Your task to perform on an android device: set the stopwatch Image 0: 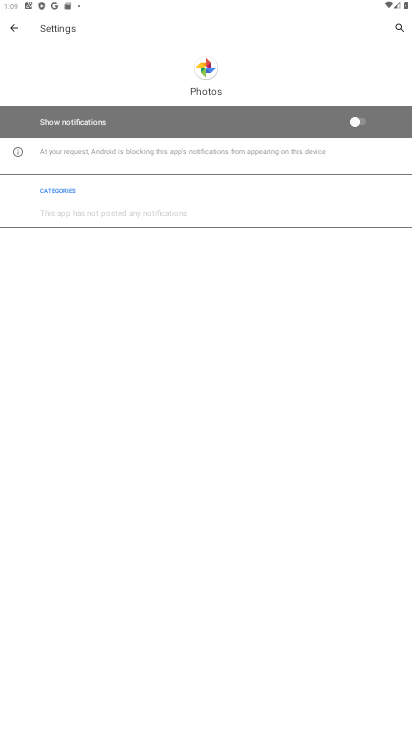
Step 0: press home button
Your task to perform on an android device: set the stopwatch Image 1: 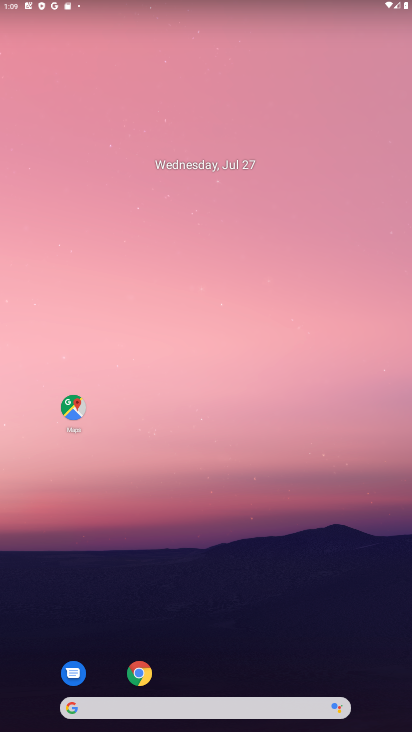
Step 1: drag from (210, 664) to (213, 113)
Your task to perform on an android device: set the stopwatch Image 2: 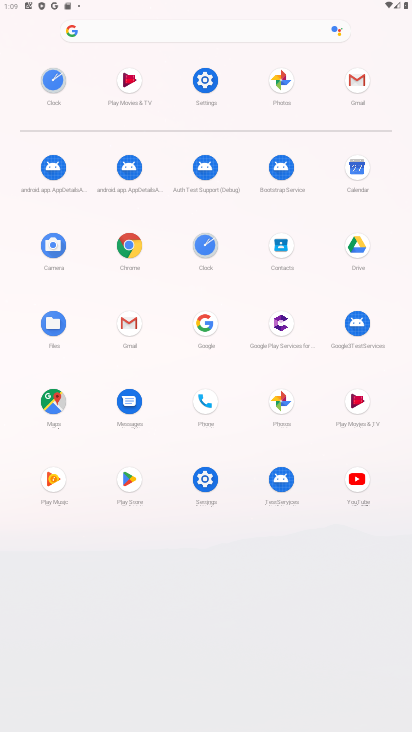
Step 2: click (54, 74)
Your task to perform on an android device: set the stopwatch Image 3: 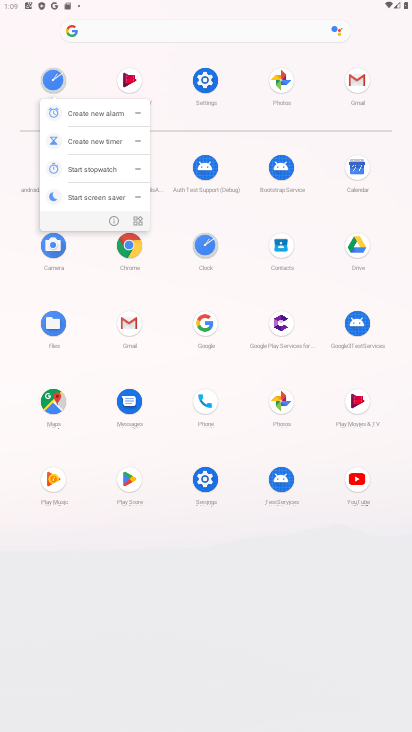
Step 3: click (53, 75)
Your task to perform on an android device: set the stopwatch Image 4: 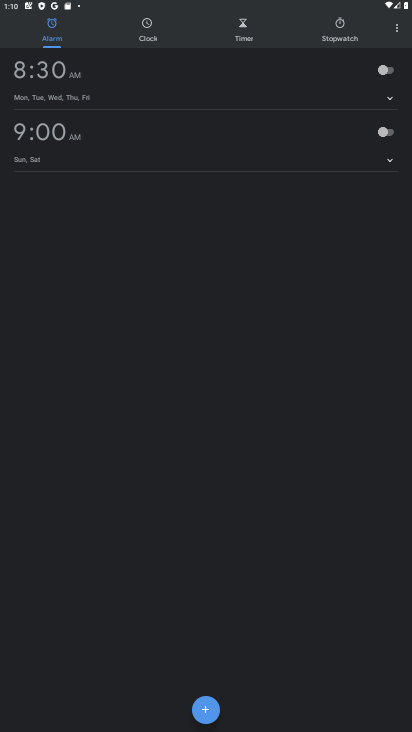
Step 4: click (333, 28)
Your task to perform on an android device: set the stopwatch Image 5: 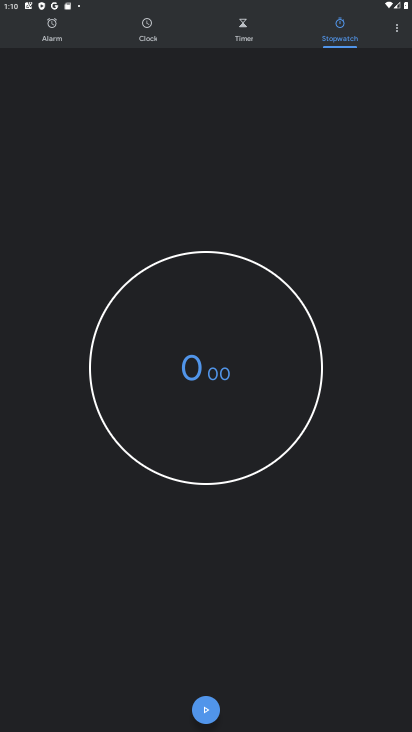
Step 5: click (208, 709)
Your task to perform on an android device: set the stopwatch Image 6: 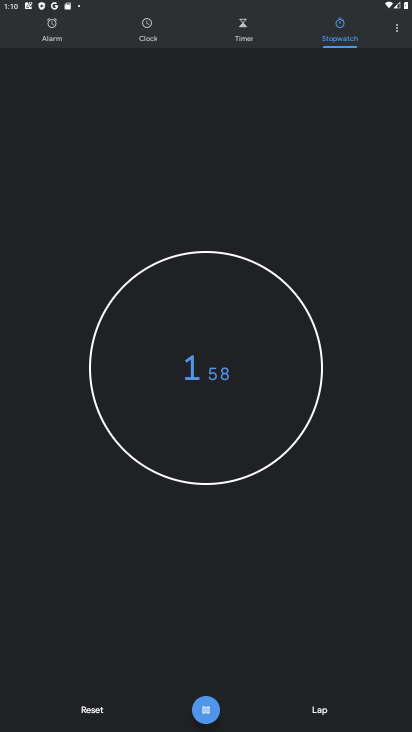
Step 6: click (208, 709)
Your task to perform on an android device: set the stopwatch Image 7: 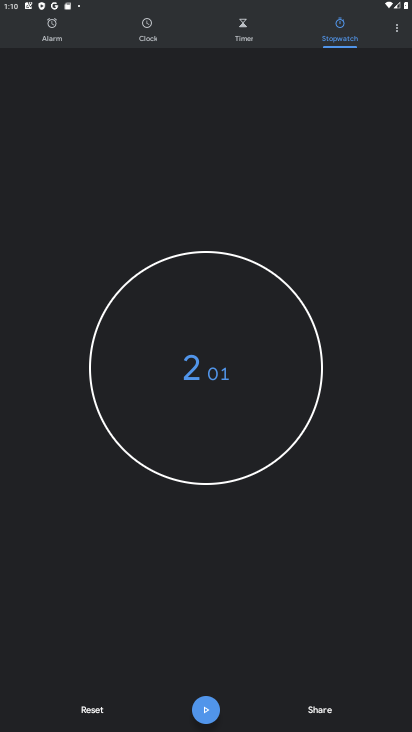
Step 7: task complete